Your task to perform on an android device: star an email in the gmail app Image 0: 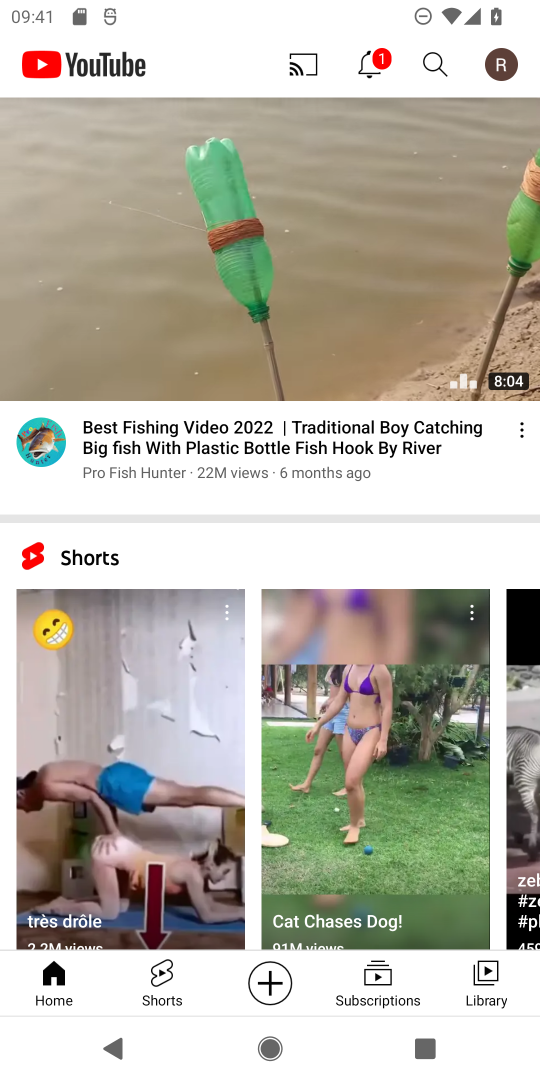
Step 0: press home button
Your task to perform on an android device: star an email in the gmail app Image 1: 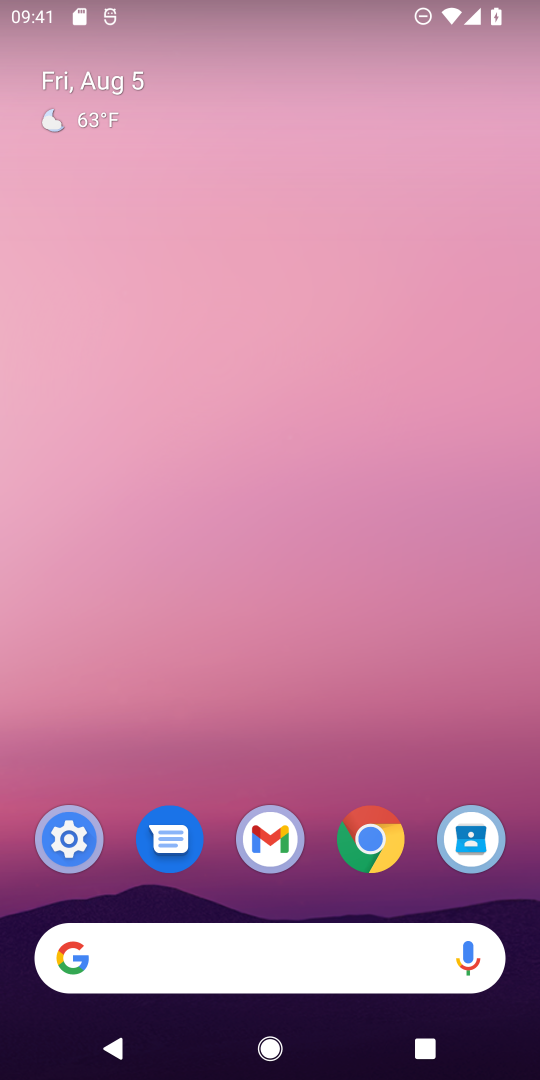
Step 1: drag from (321, 817) to (316, 75)
Your task to perform on an android device: star an email in the gmail app Image 2: 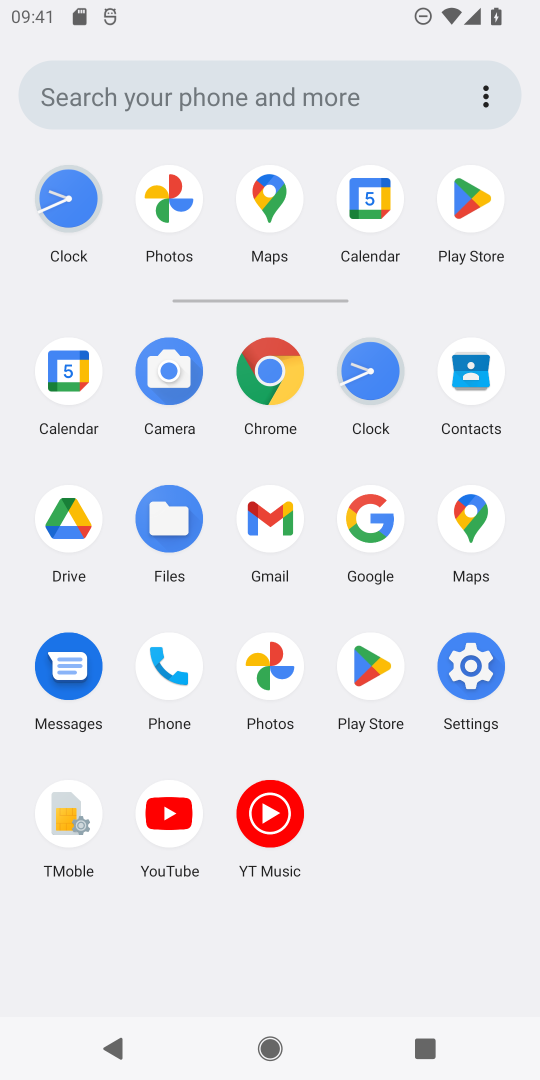
Step 2: click (263, 536)
Your task to perform on an android device: star an email in the gmail app Image 3: 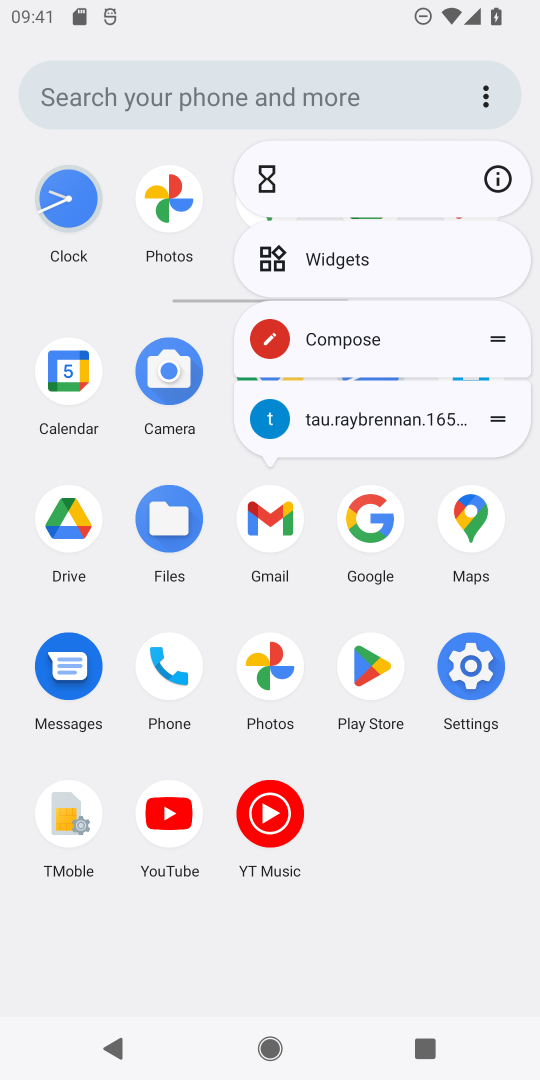
Step 3: click (273, 531)
Your task to perform on an android device: star an email in the gmail app Image 4: 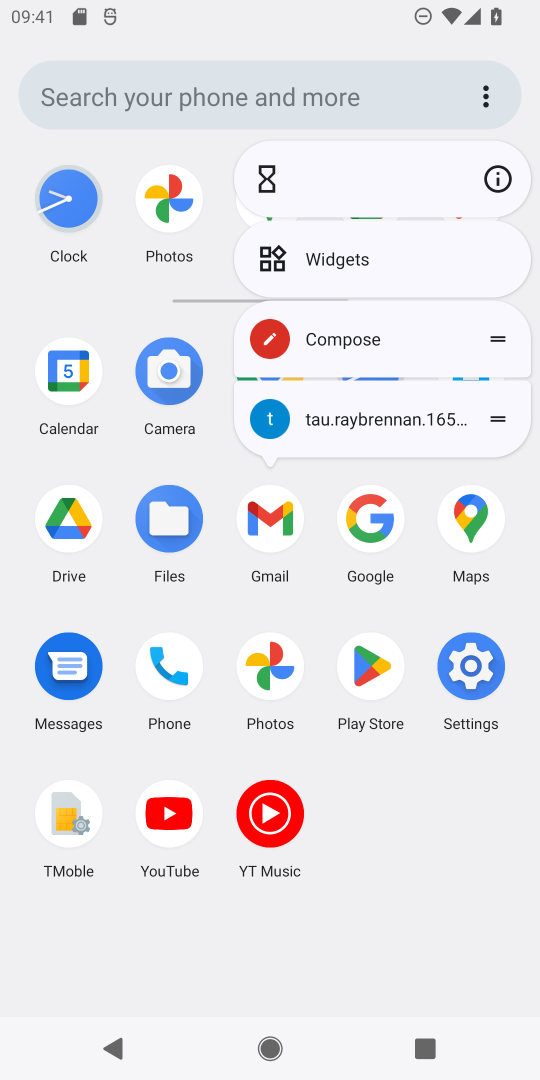
Step 4: click (283, 512)
Your task to perform on an android device: star an email in the gmail app Image 5: 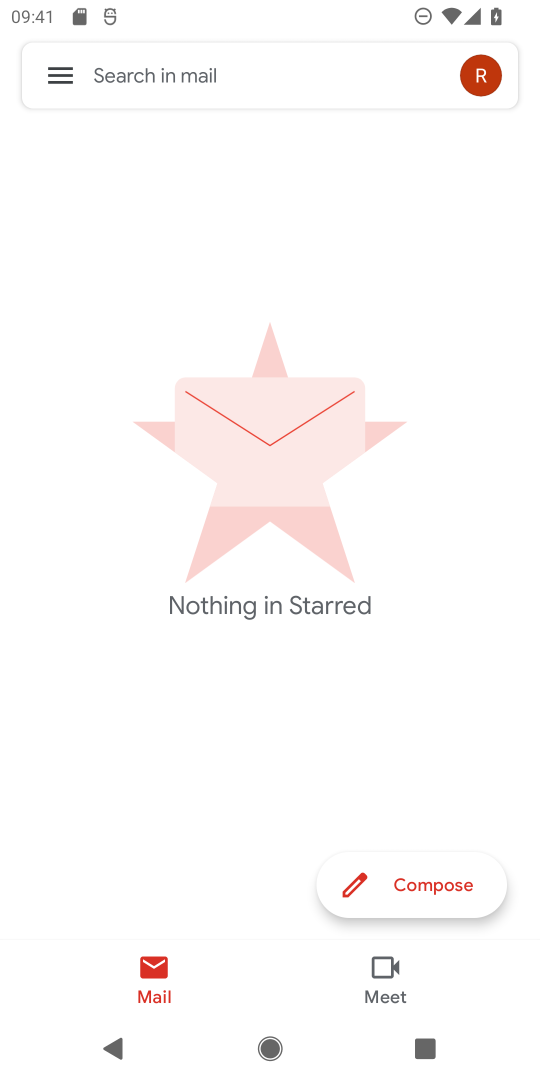
Step 5: click (65, 77)
Your task to perform on an android device: star an email in the gmail app Image 6: 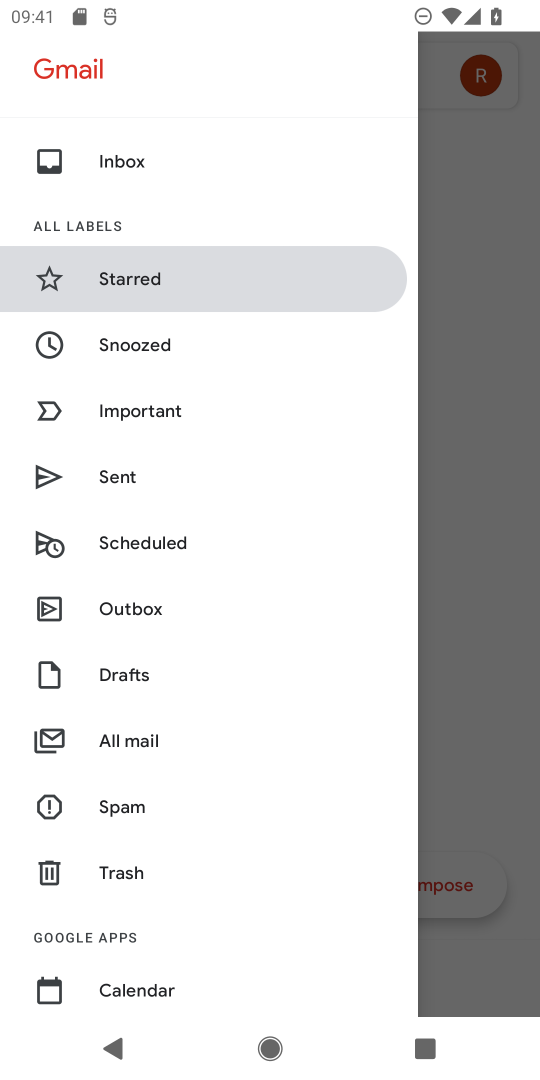
Step 6: click (113, 157)
Your task to perform on an android device: star an email in the gmail app Image 7: 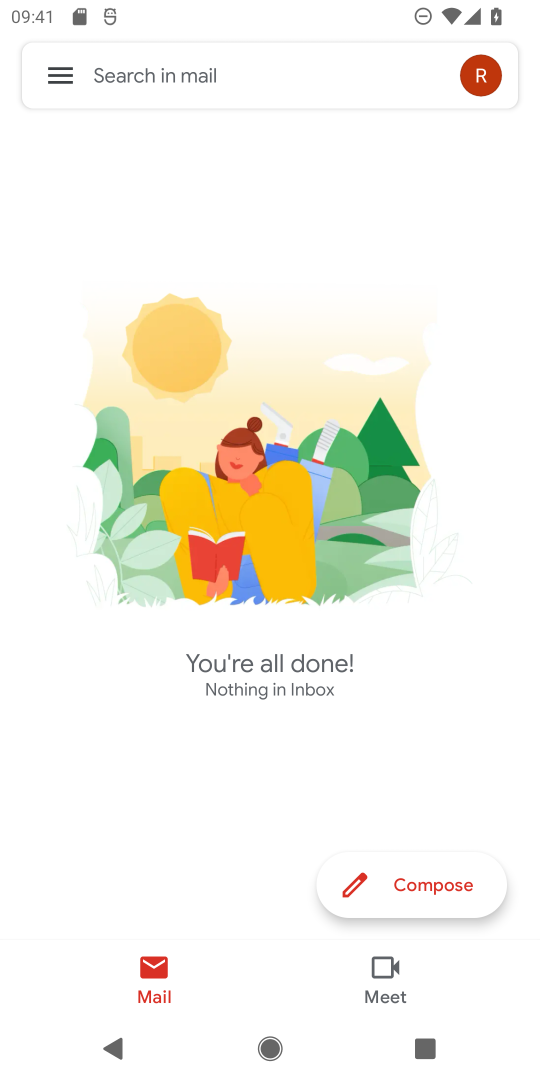
Step 7: task complete